Your task to perform on an android device: What's the news in Brazil? Image 0: 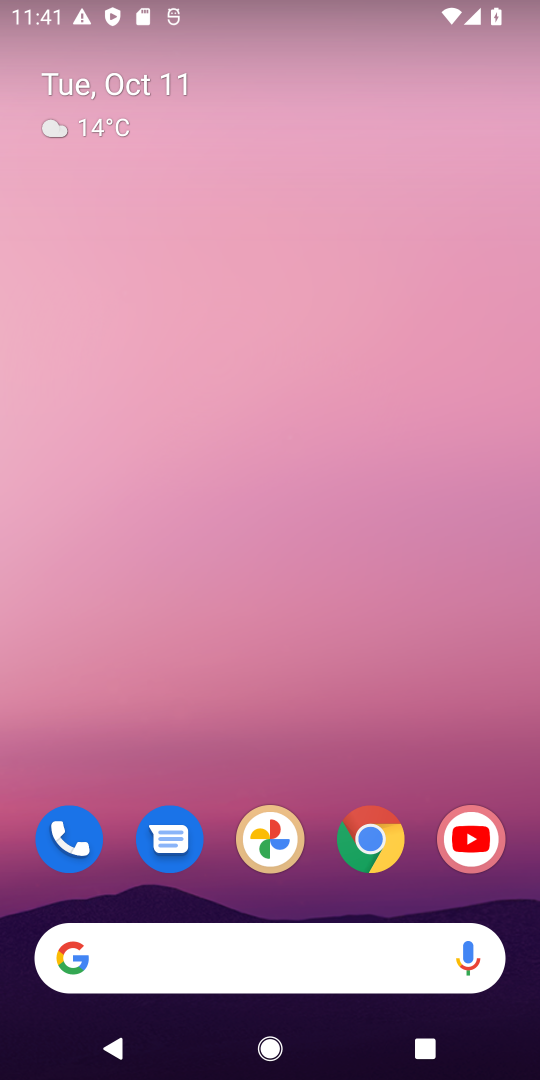
Step 0: click (378, 863)
Your task to perform on an android device: What's the news in Brazil? Image 1: 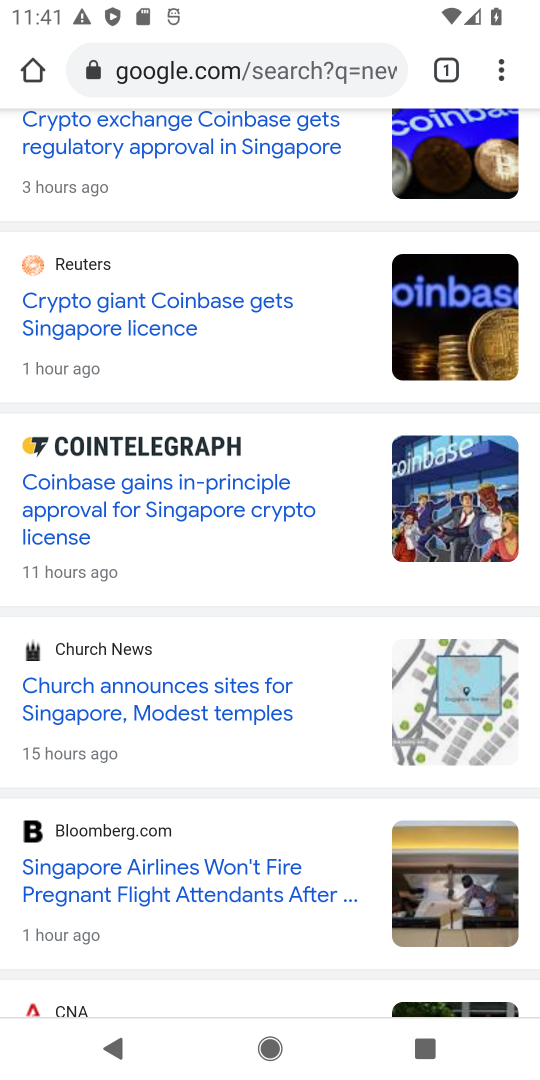
Step 1: click (204, 80)
Your task to perform on an android device: What's the news in Brazil? Image 2: 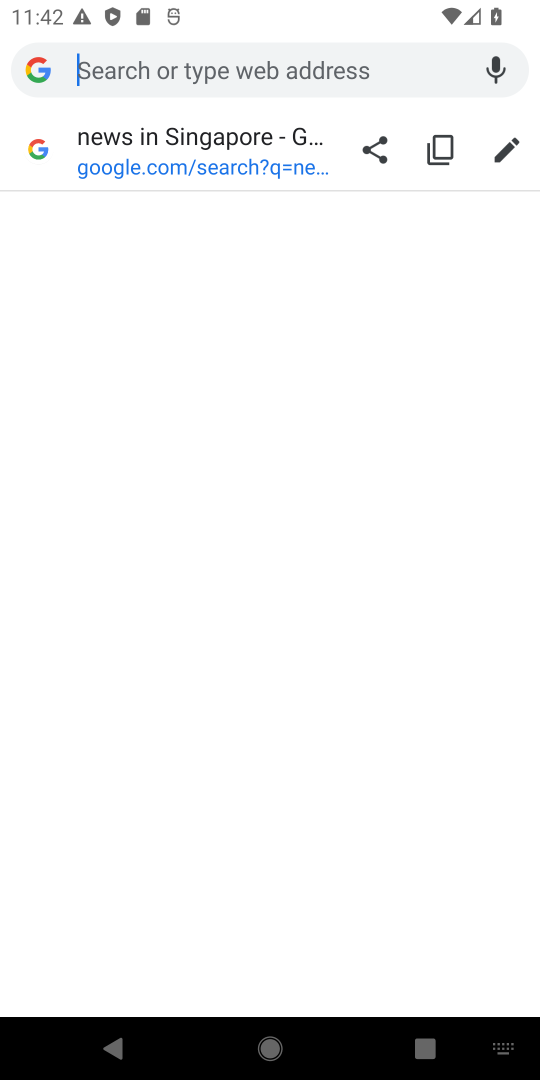
Step 2: type "news in Brazil"
Your task to perform on an android device: What's the news in Brazil? Image 3: 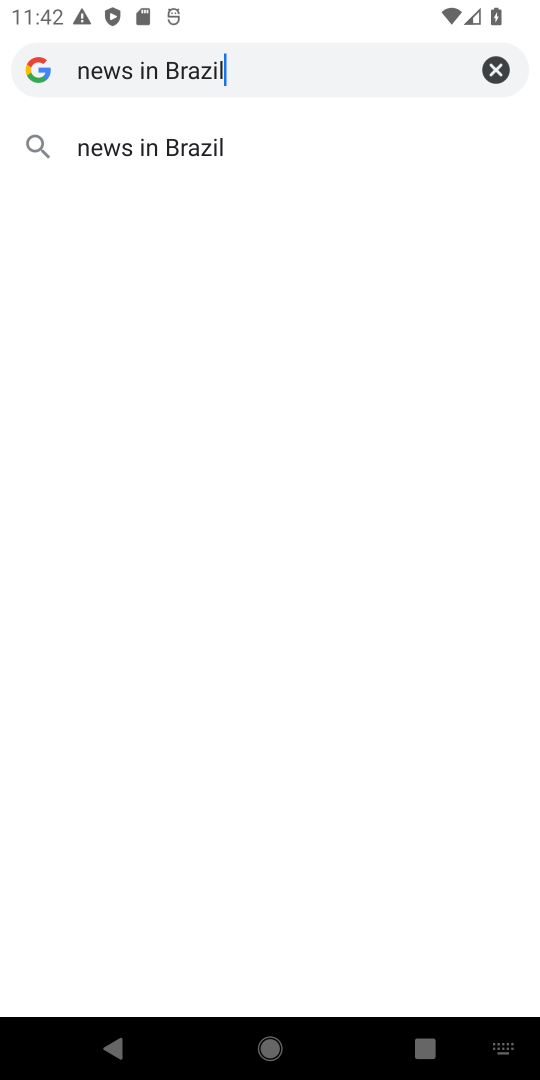
Step 3: click (391, 134)
Your task to perform on an android device: What's the news in Brazil? Image 4: 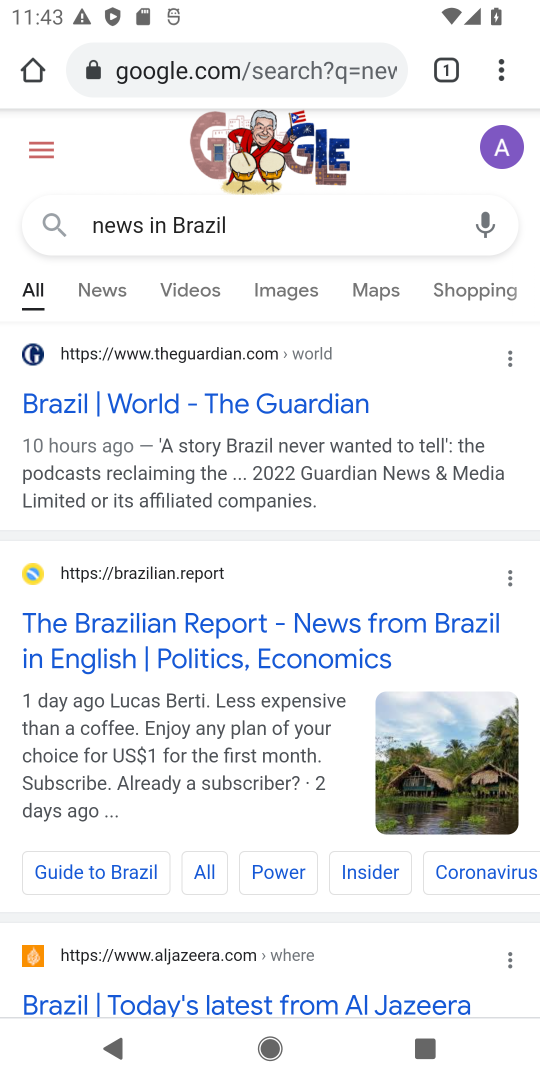
Step 4: click (116, 284)
Your task to perform on an android device: What's the news in Brazil? Image 5: 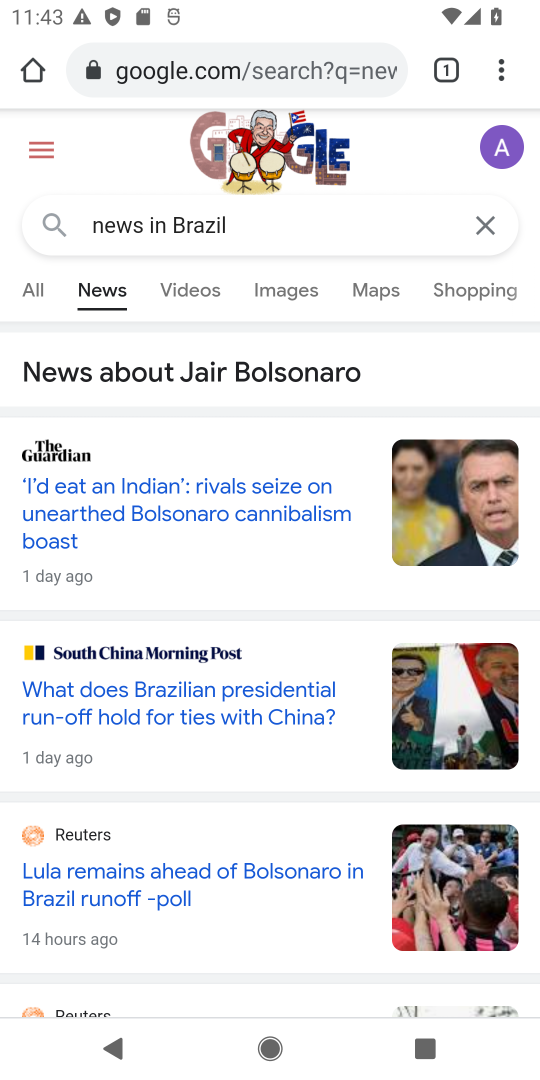
Step 5: task complete